Your task to perform on an android device: check data usage Image 0: 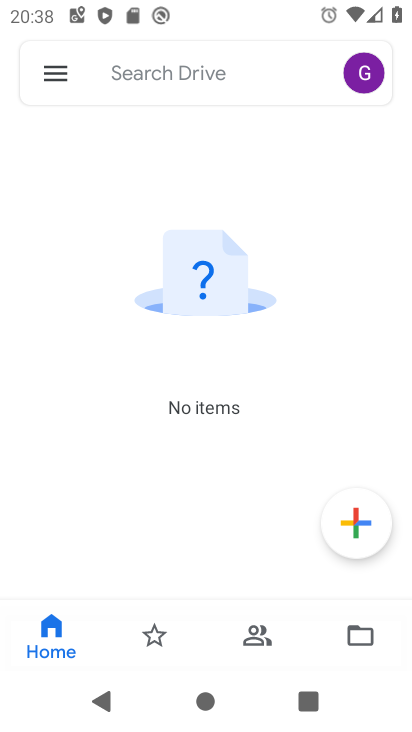
Step 0: press home button
Your task to perform on an android device: check data usage Image 1: 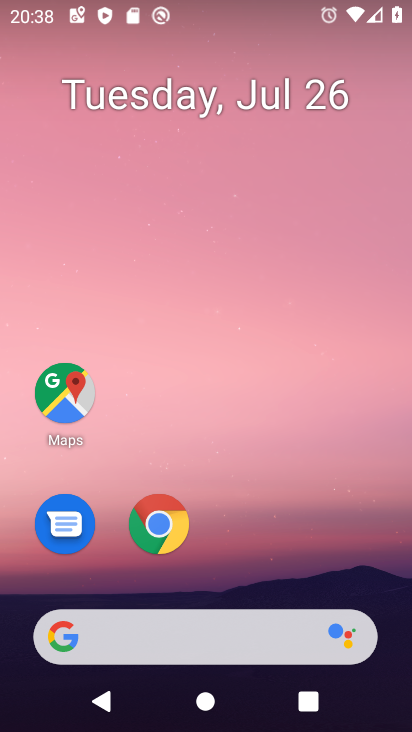
Step 1: drag from (275, 548) to (284, 23)
Your task to perform on an android device: check data usage Image 2: 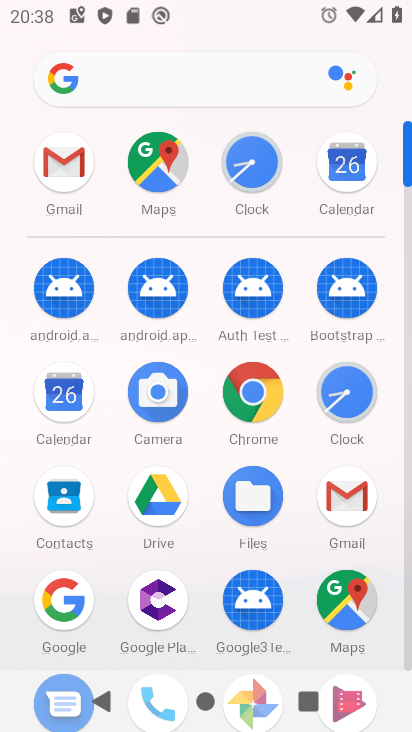
Step 2: drag from (208, 427) to (229, 137)
Your task to perform on an android device: check data usage Image 3: 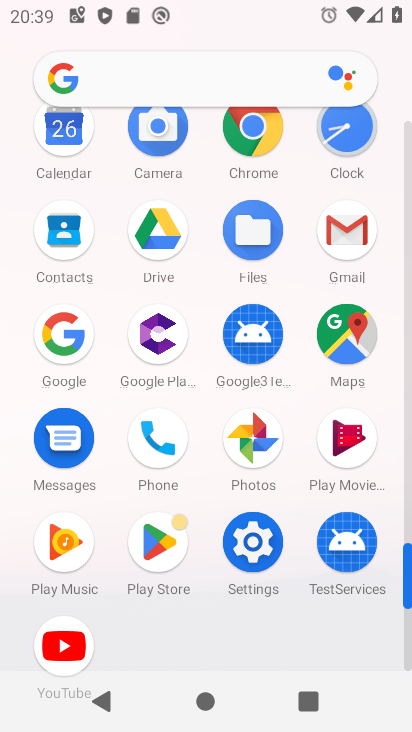
Step 3: click (243, 539)
Your task to perform on an android device: check data usage Image 4: 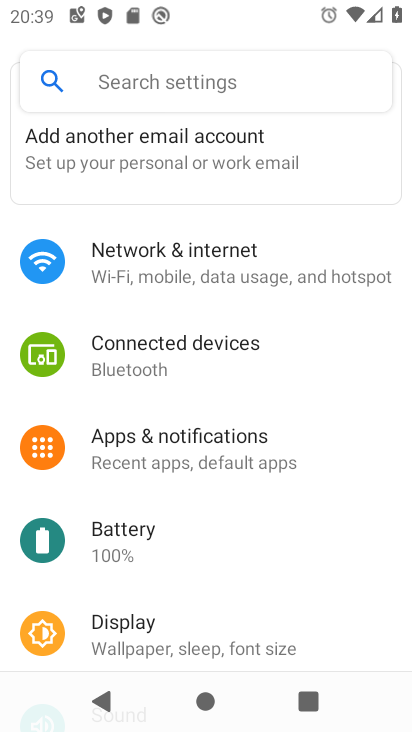
Step 4: click (215, 271)
Your task to perform on an android device: check data usage Image 5: 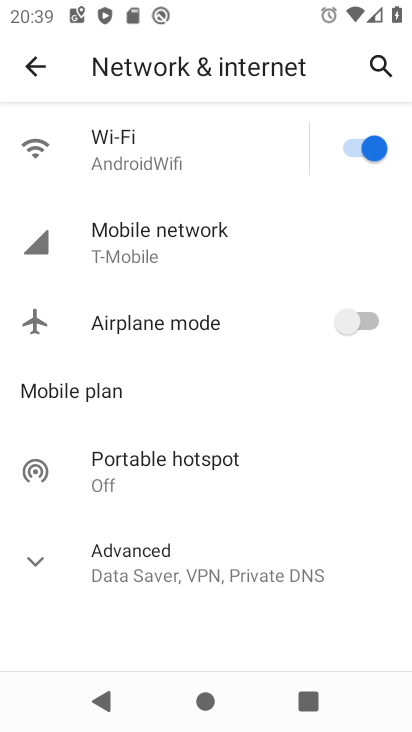
Step 5: click (191, 241)
Your task to perform on an android device: check data usage Image 6: 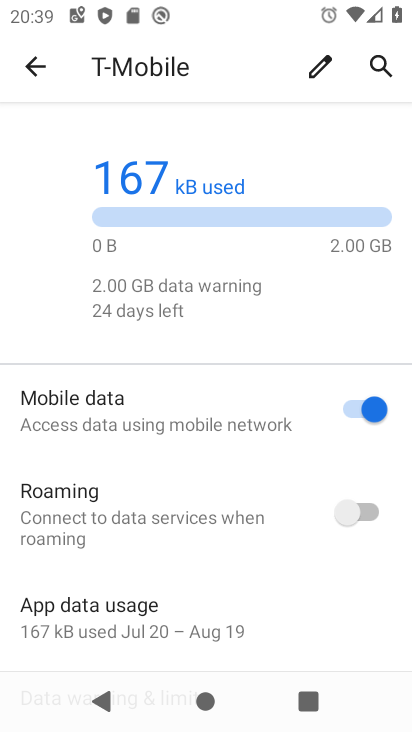
Step 6: task complete